Your task to perform on an android device: see tabs open on other devices in the chrome app Image 0: 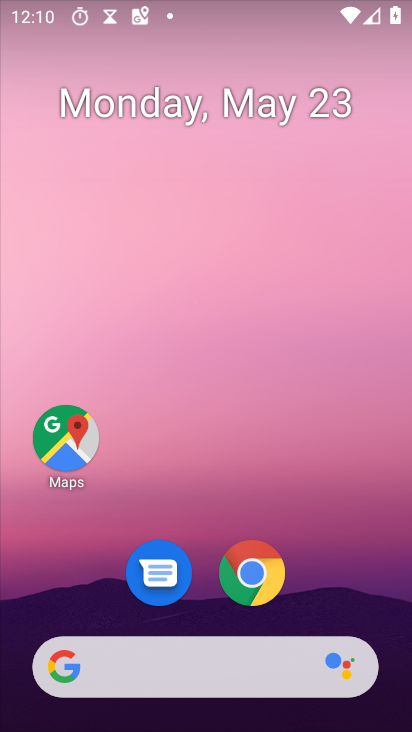
Step 0: click (229, 591)
Your task to perform on an android device: see tabs open on other devices in the chrome app Image 1: 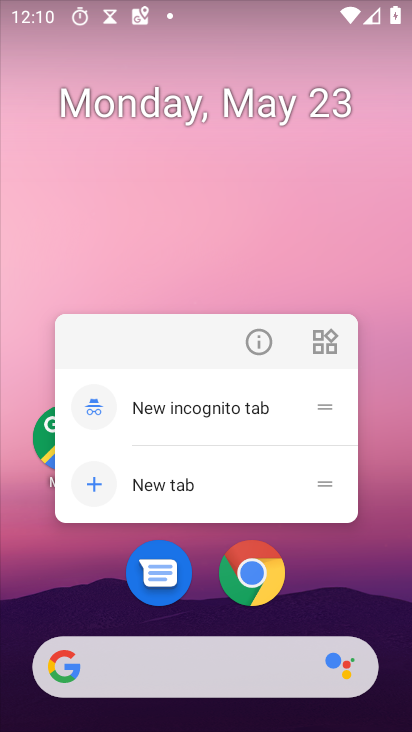
Step 1: click (249, 573)
Your task to perform on an android device: see tabs open on other devices in the chrome app Image 2: 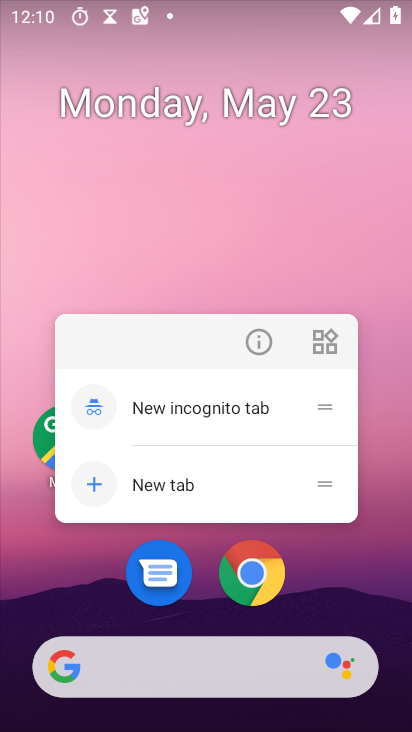
Step 2: click (243, 591)
Your task to perform on an android device: see tabs open on other devices in the chrome app Image 3: 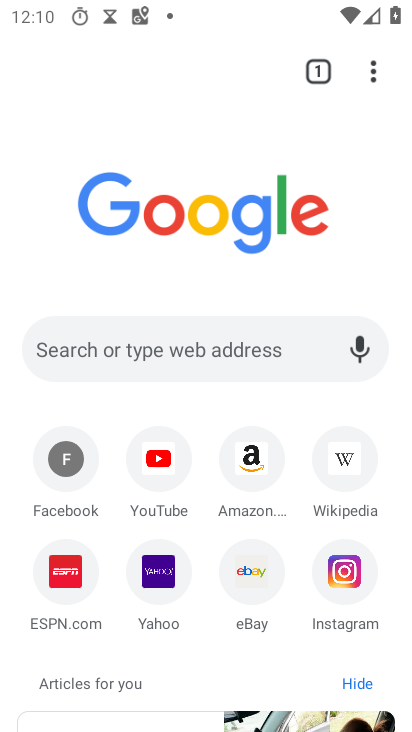
Step 3: task complete